Your task to perform on an android device: Set the phone to "Do not disturb". Image 0: 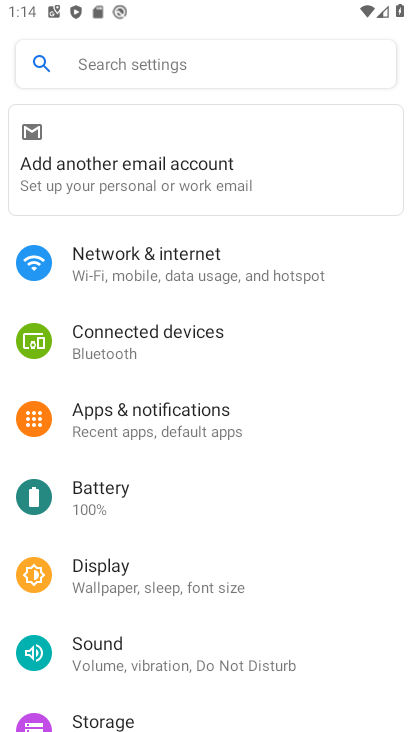
Step 0: press back button
Your task to perform on an android device: Set the phone to "Do not disturb". Image 1: 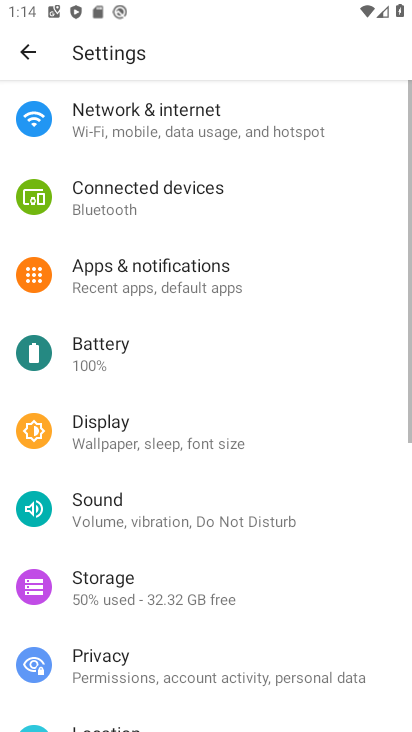
Step 1: press back button
Your task to perform on an android device: Set the phone to "Do not disturb". Image 2: 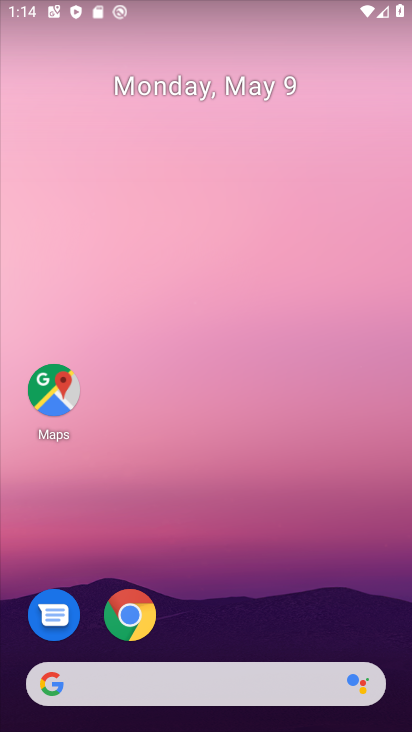
Step 2: drag from (224, 576) to (196, 11)
Your task to perform on an android device: Set the phone to "Do not disturb". Image 3: 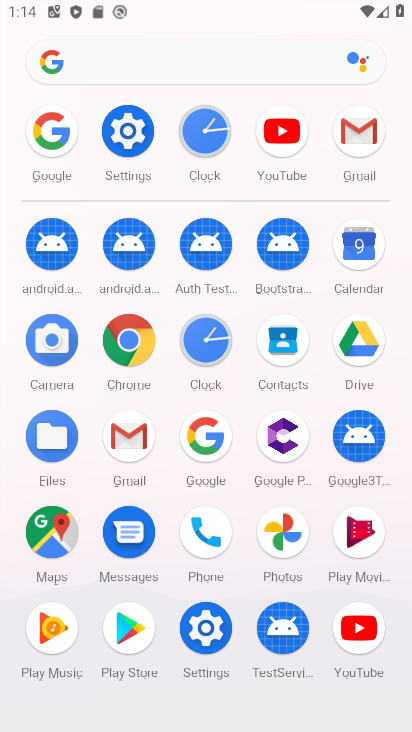
Step 3: click (127, 129)
Your task to perform on an android device: Set the phone to "Do not disturb". Image 4: 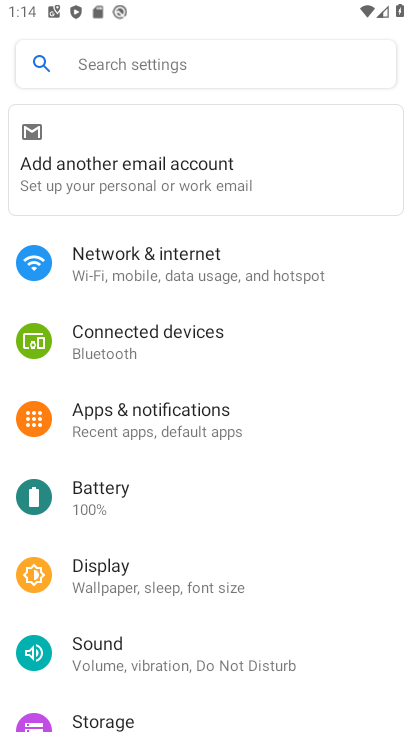
Step 4: drag from (147, 365) to (203, 277)
Your task to perform on an android device: Set the phone to "Do not disturb". Image 5: 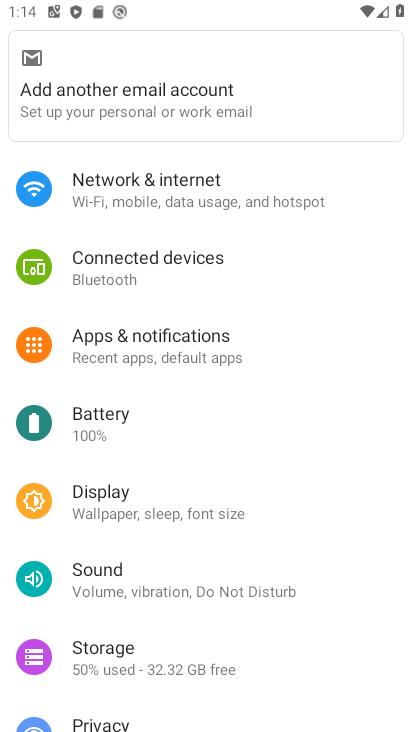
Step 5: drag from (183, 414) to (244, 332)
Your task to perform on an android device: Set the phone to "Do not disturb". Image 6: 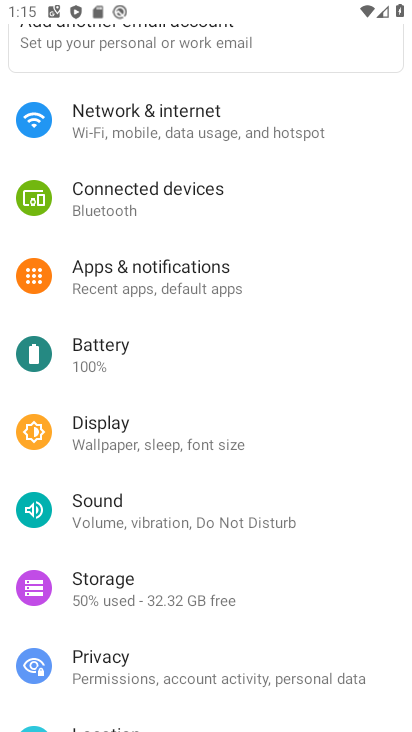
Step 6: click (131, 527)
Your task to perform on an android device: Set the phone to "Do not disturb". Image 7: 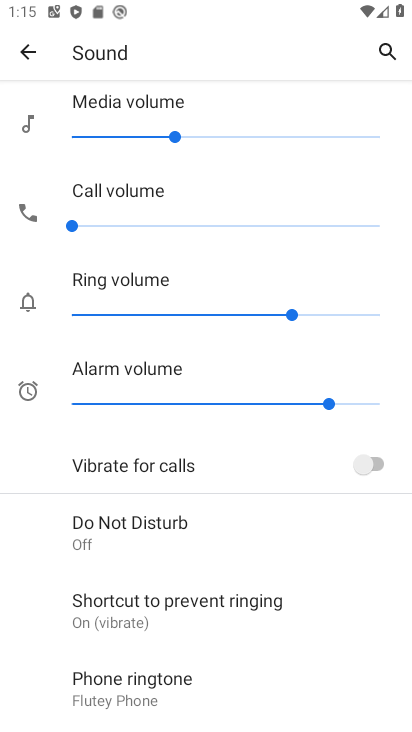
Step 7: click (145, 524)
Your task to perform on an android device: Set the phone to "Do not disturb". Image 8: 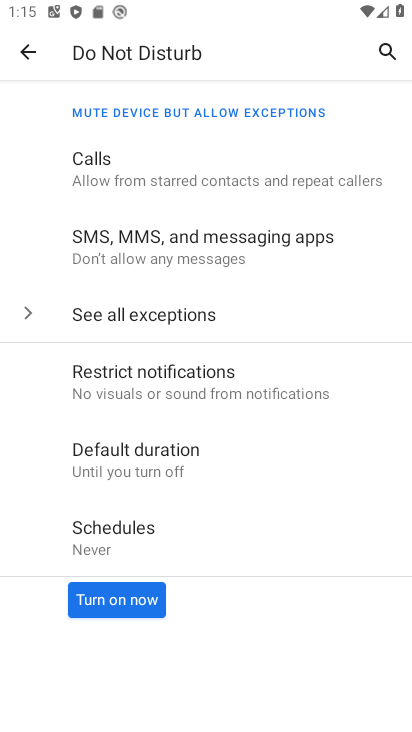
Step 8: click (117, 592)
Your task to perform on an android device: Set the phone to "Do not disturb". Image 9: 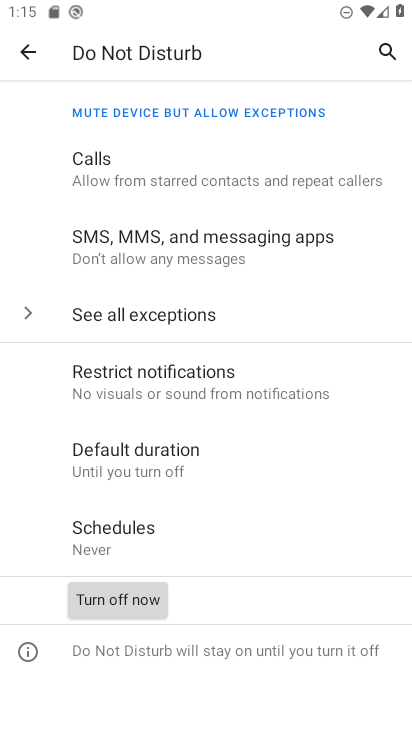
Step 9: task complete